Your task to perform on an android device: What's the weather today? Image 0: 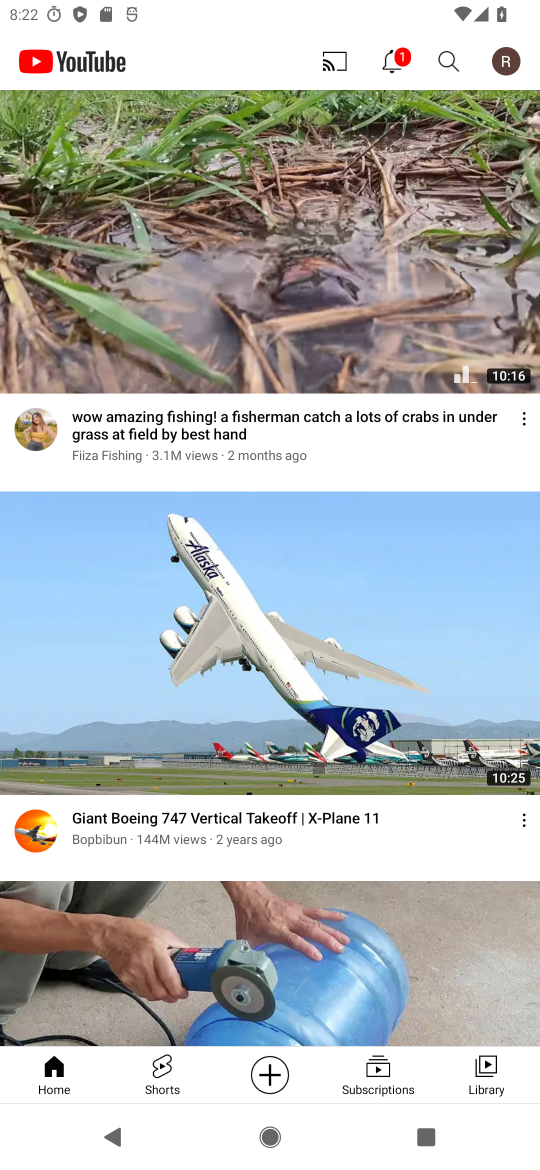
Step 0: press home button
Your task to perform on an android device: What's the weather today? Image 1: 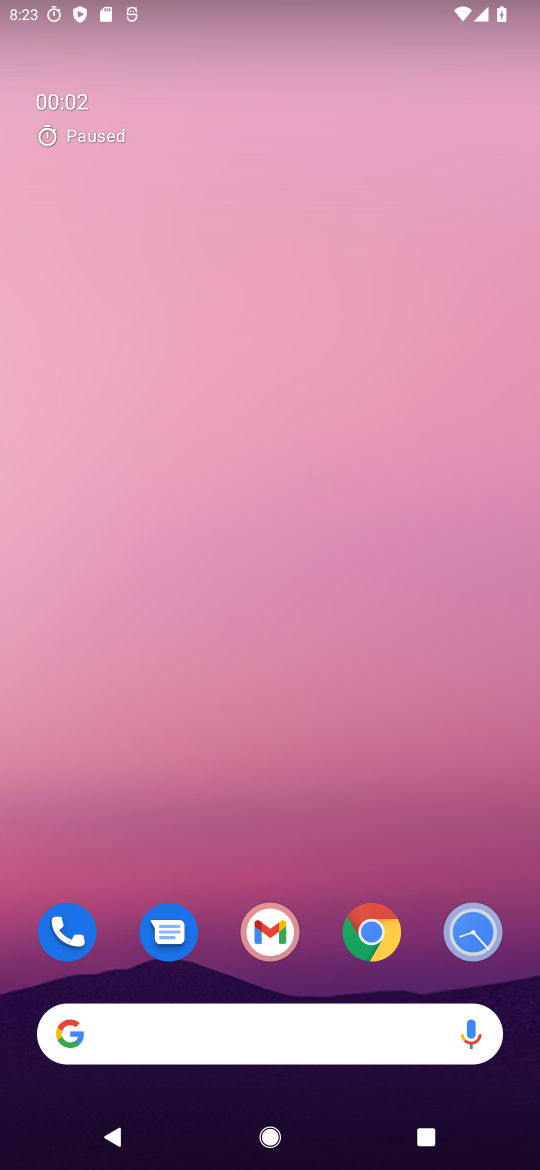
Step 1: click (206, 1030)
Your task to perform on an android device: What's the weather today? Image 2: 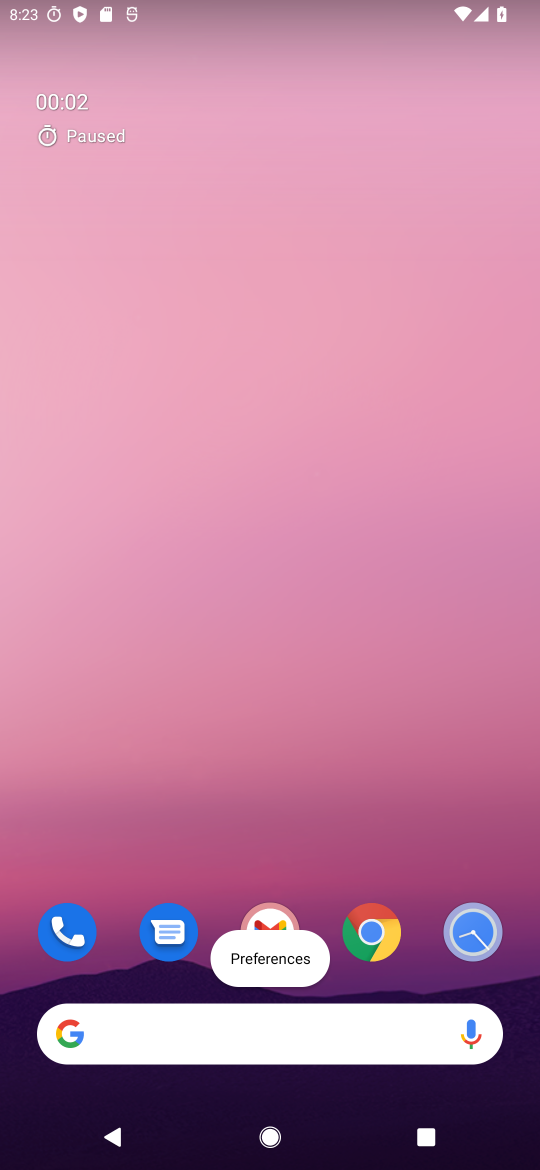
Step 2: click (206, 1030)
Your task to perform on an android device: What's the weather today? Image 3: 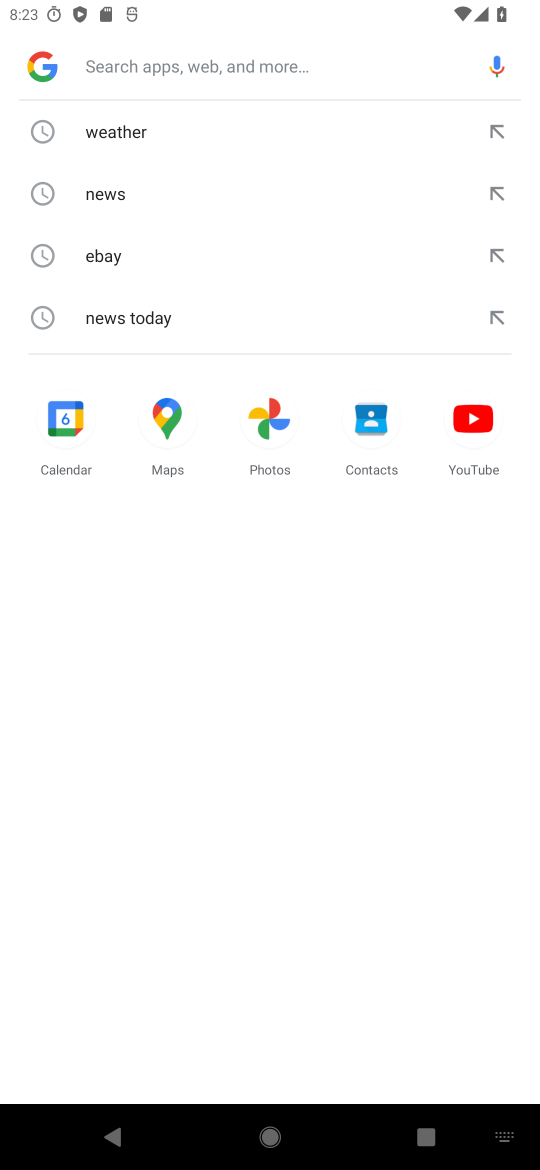
Step 3: click (139, 126)
Your task to perform on an android device: What's the weather today? Image 4: 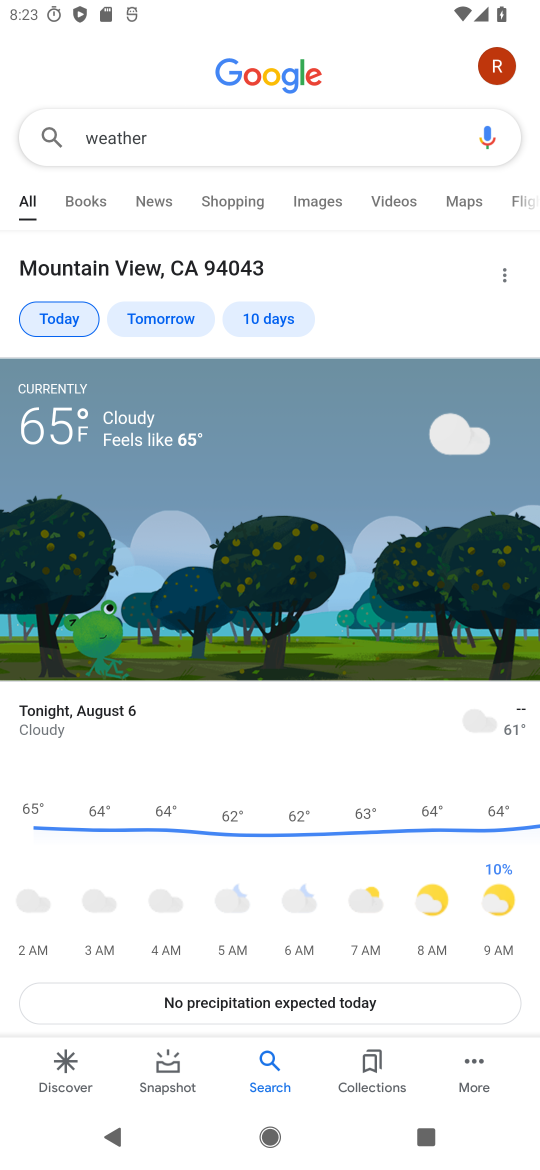
Step 4: task complete